Your task to perform on an android device: Go to CNN.com Image 0: 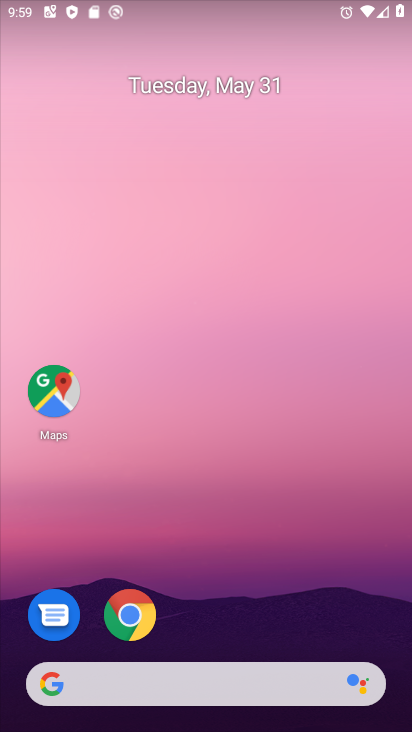
Step 0: drag from (293, 571) to (363, 2)
Your task to perform on an android device: Go to CNN.com Image 1: 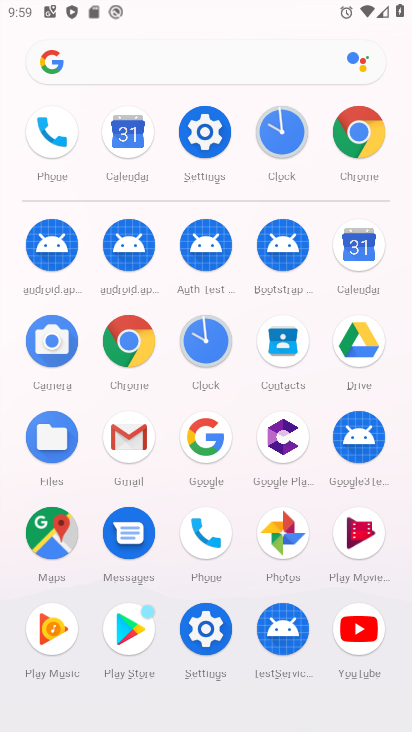
Step 1: click (364, 138)
Your task to perform on an android device: Go to CNN.com Image 2: 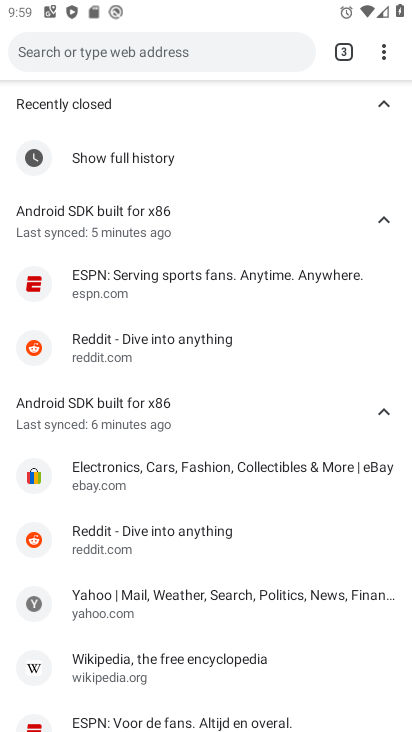
Step 2: click (201, 71)
Your task to perform on an android device: Go to CNN.com Image 3: 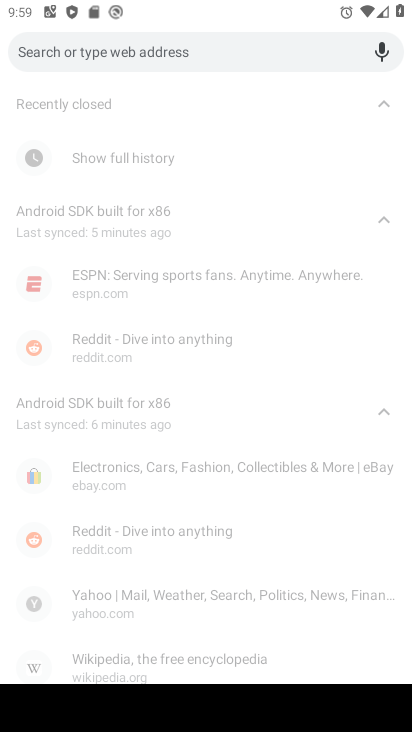
Step 3: type ""
Your task to perform on an android device: Go to CNN.com Image 4: 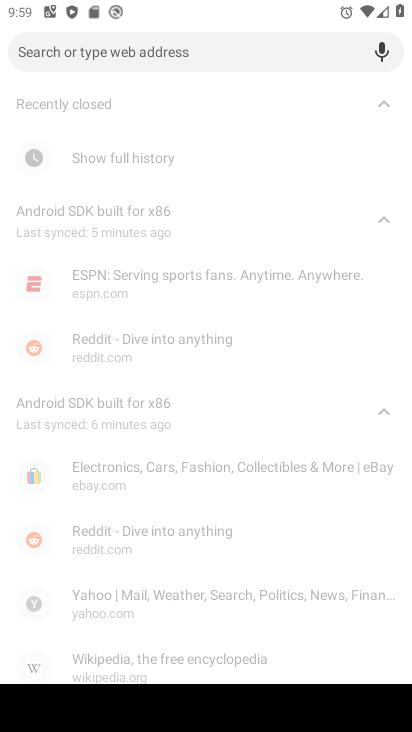
Step 4: type "cnn"
Your task to perform on an android device: Go to CNN.com Image 5: 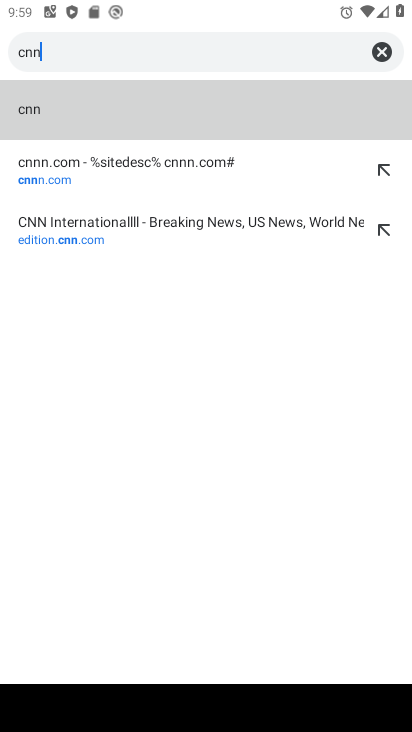
Step 5: click (108, 219)
Your task to perform on an android device: Go to CNN.com Image 6: 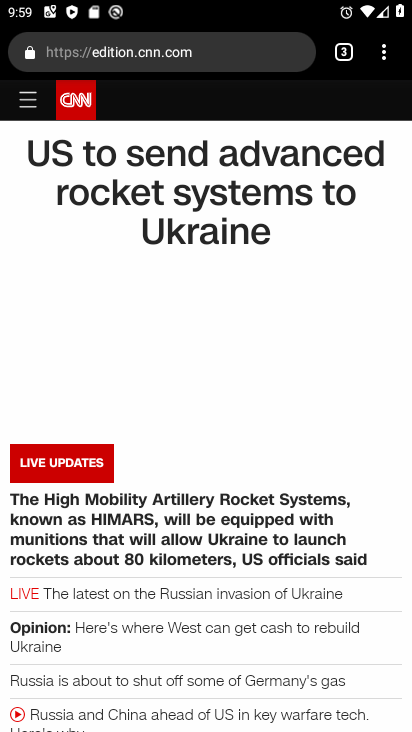
Step 6: task complete